Your task to perform on an android device: open a new tab in the chrome app Image 0: 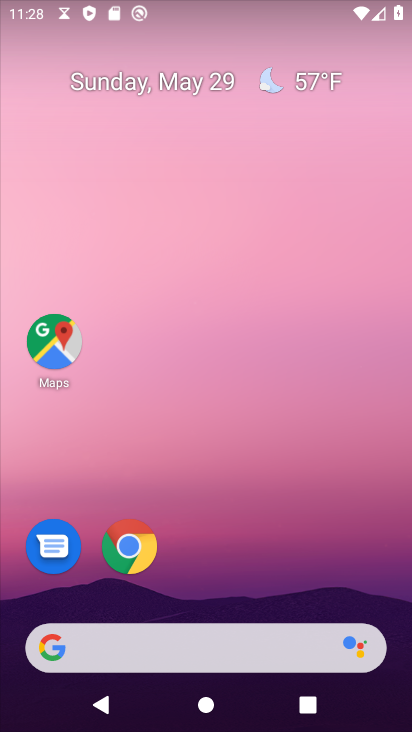
Step 0: press home button
Your task to perform on an android device: open a new tab in the chrome app Image 1: 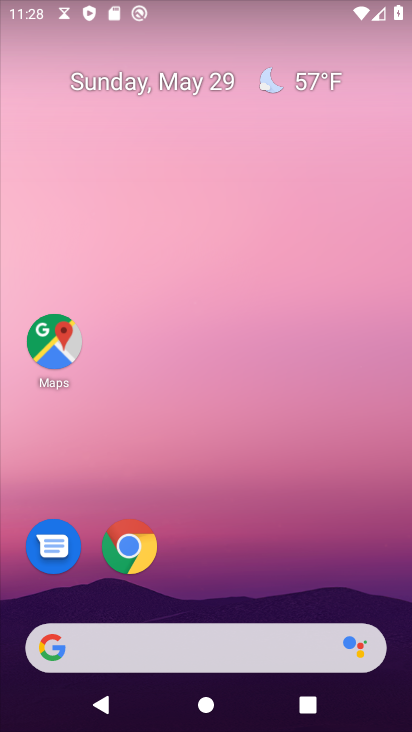
Step 1: click (134, 552)
Your task to perform on an android device: open a new tab in the chrome app Image 2: 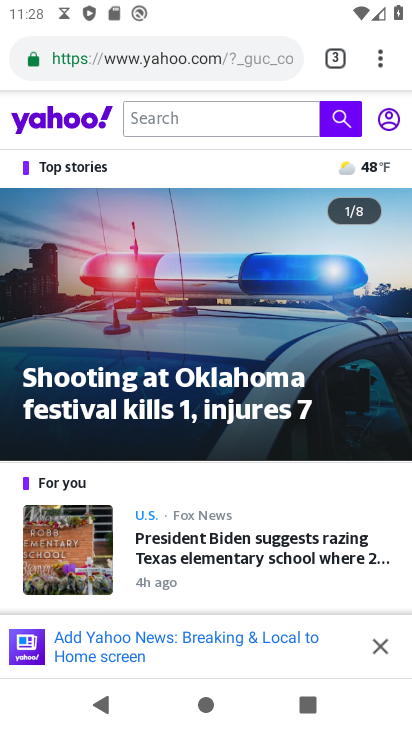
Step 2: task complete